Your task to perform on an android device: Is it going to rain today? Image 0: 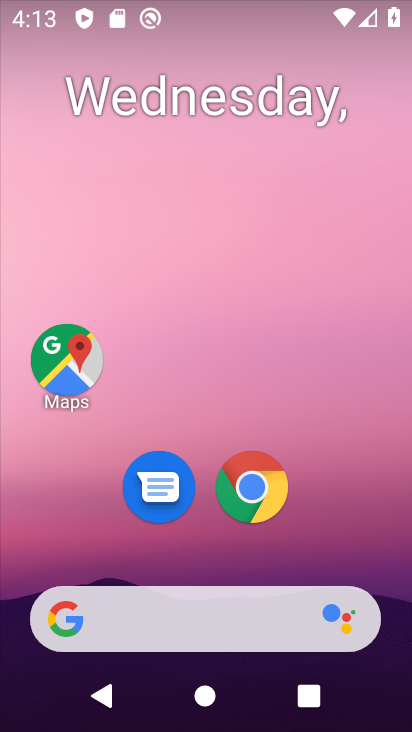
Step 0: drag from (11, 258) to (362, 258)
Your task to perform on an android device: Is it going to rain today? Image 1: 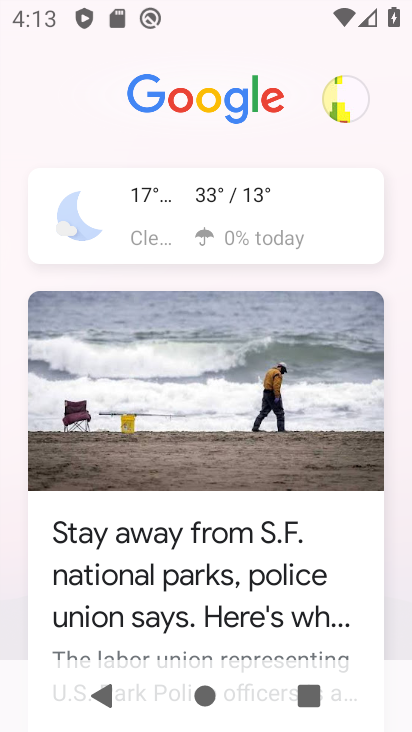
Step 1: click (239, 204)
Your task to perform on an android device: Is it going to rain today? Image 2: 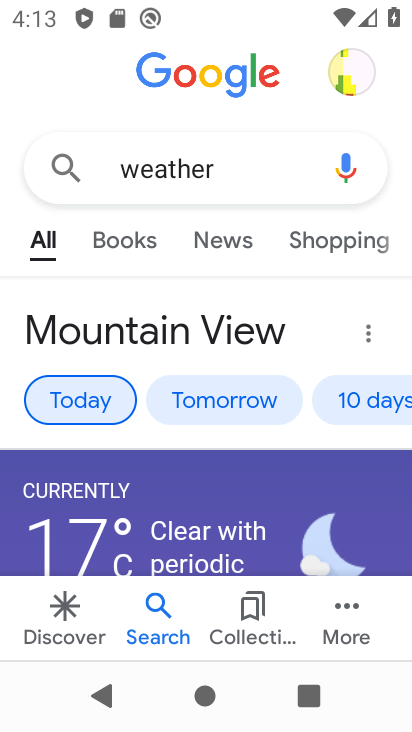
Step 2: task complete